Your task to perform on an android device: turn on bluetooth scan Image 0: 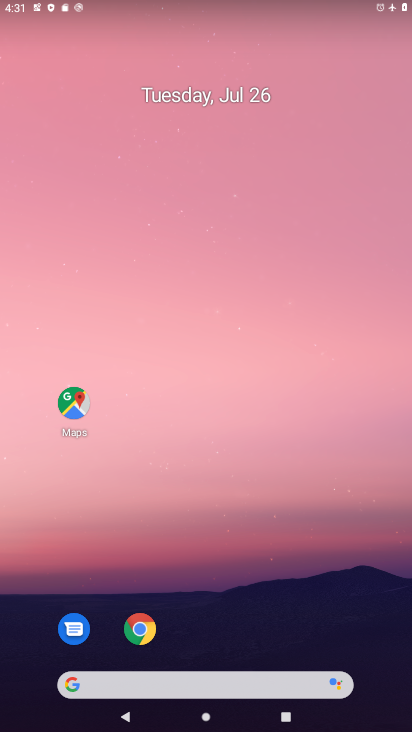
Step 0: drag from (225, 718) to (213, 225)
Your task to perform on an android device: turn on bluetooth scan Image 1: 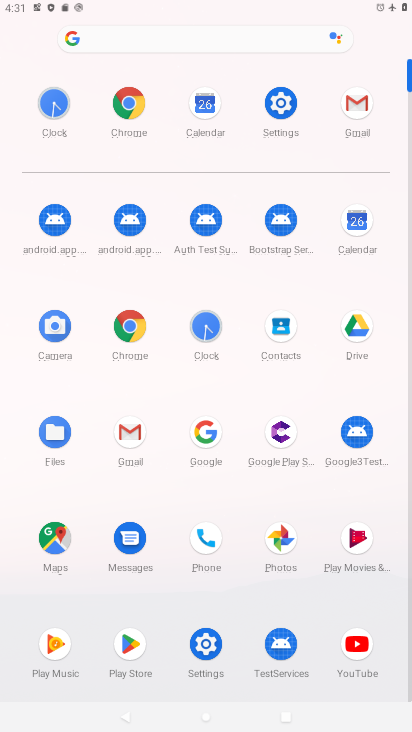
Step 1: click (279, 103)
Your task to perform on an android device: turn on bluetooth scan Image 2: 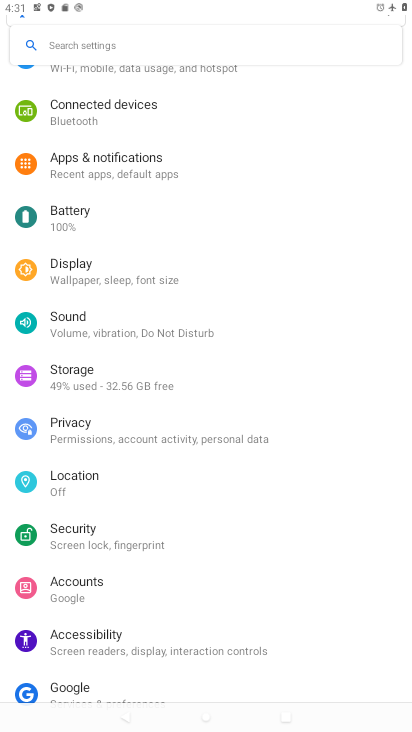
Step 2: click (73, 477)
Your task to perform on an android device: turn on bluetooth scan Image 3: 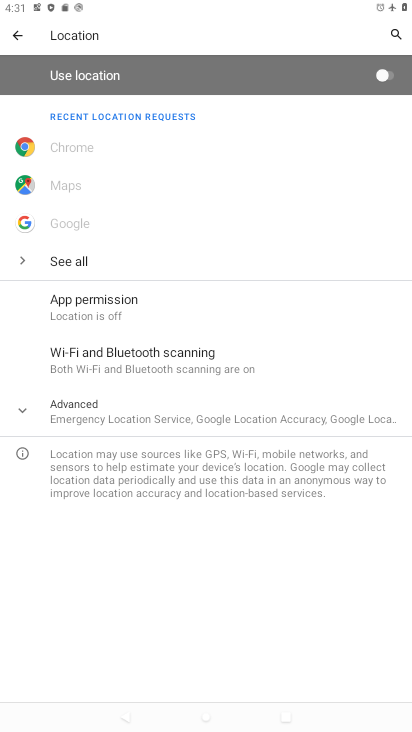
Step 3: click (158, 361)
Your task to perform on an android device: turn on bluetooth scan Image 4: 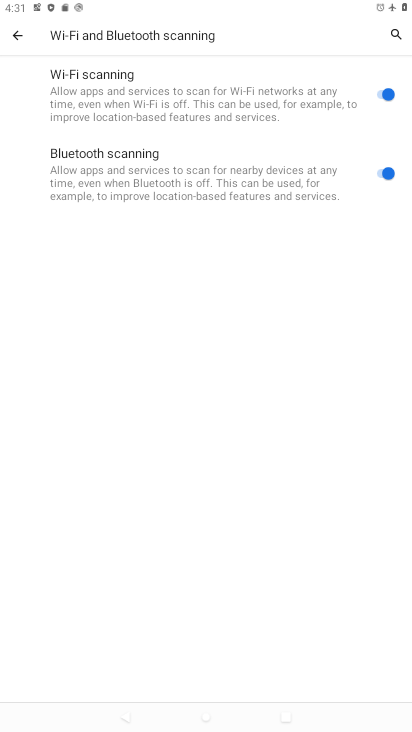
Step 4: task complete